Your task to perform on an android device: check the backup settings in the google photos Image 0: 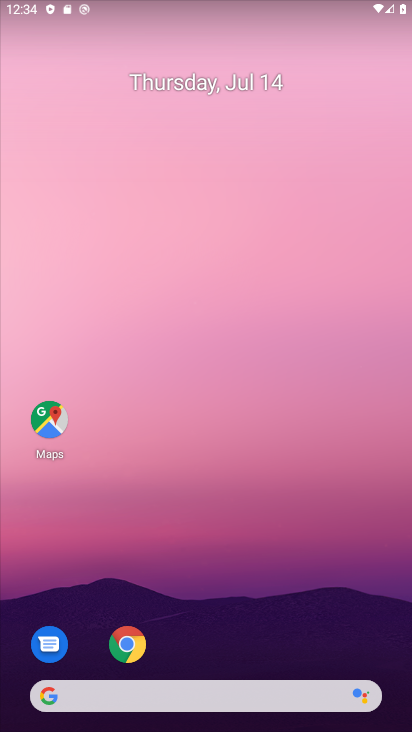
Step 0: drag from (305, 510) to (168, 143)
Your task to perform on an android device: check the backup settings in the google photos Image 1: 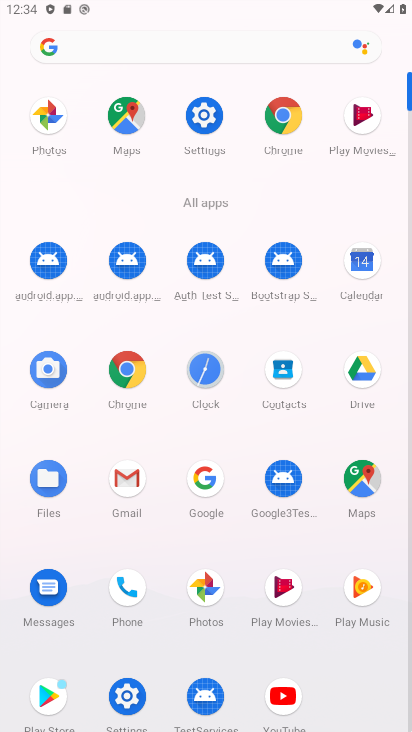
Step 1: click (207, 595)
Your task to perform on an android device: check the backup settings in the google photos Image 2: 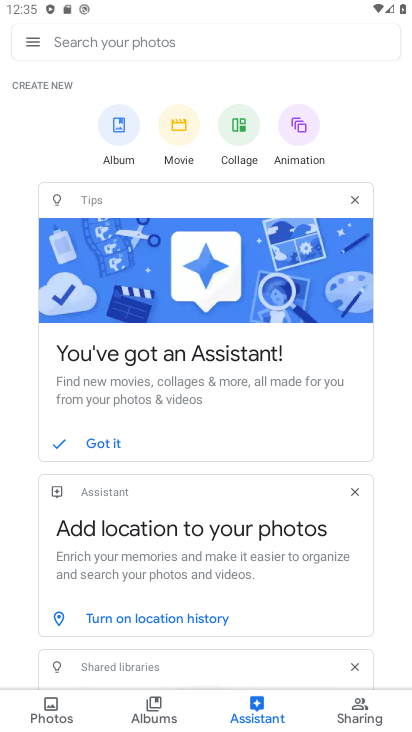
Step 2: click (38, 38)
Your task to perform on an android device: check the backup settings in the google photos Image 3: 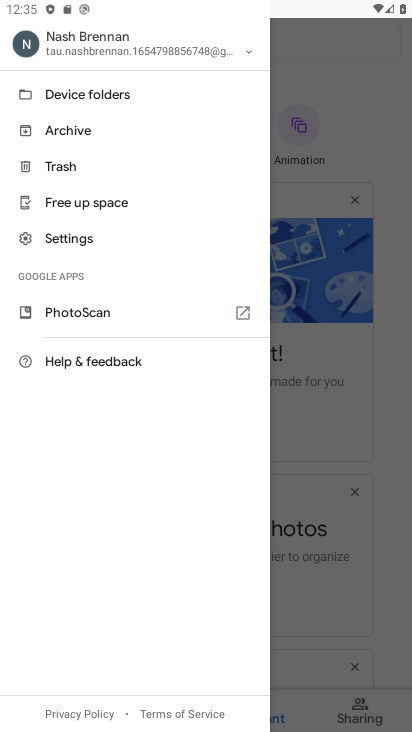
Step 3: click (84, 239)
Your task to perform on an android device: check the backup settings in the google photos Image 4: 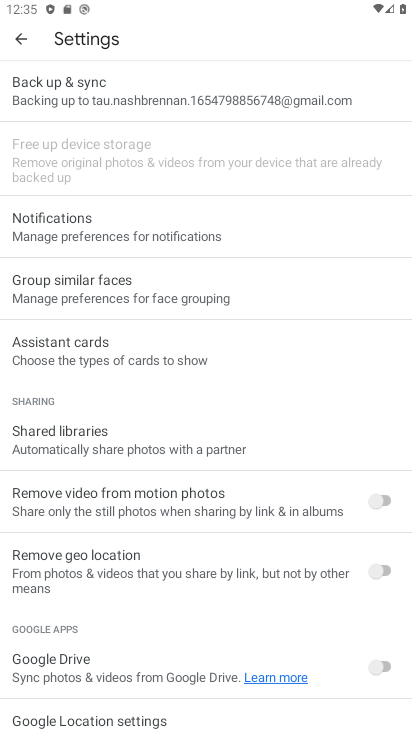
Step 4: click (46, 86)
Your task to perform on an android device: check the backup settings in the google photos Image 5: 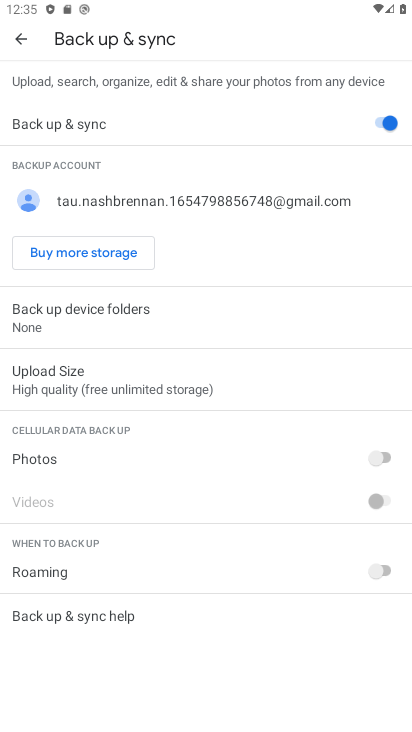
Step 5: task complete